Your task to perform on an android device: see sites visited before in the chrome app Image 0: 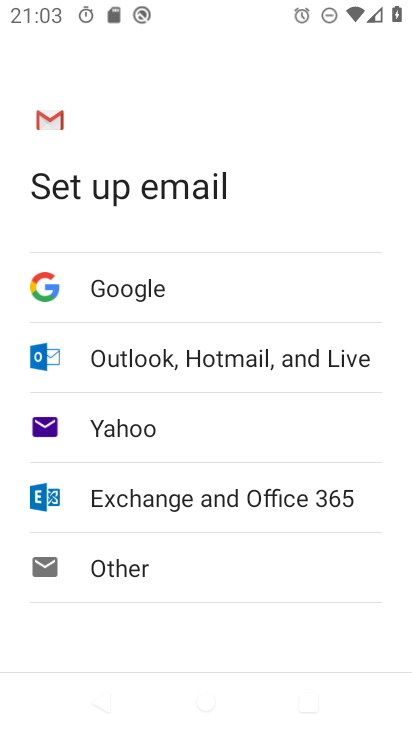
Step 0: press home button
Your task to perform on an android device: see sites visited before in the chrome app Image 1: 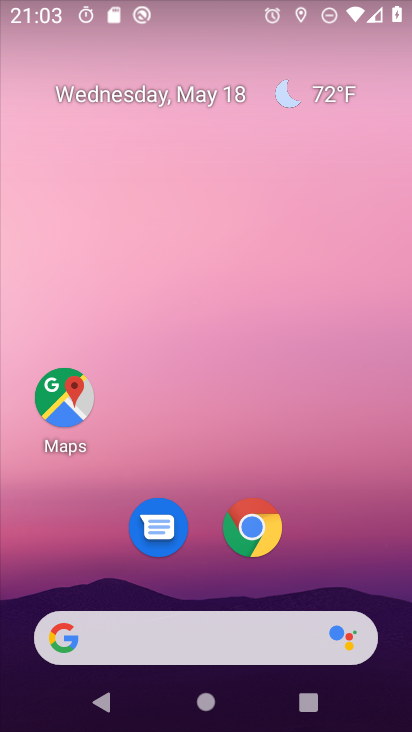
Step 1: click (259, 515)
Your task to perform on an android device: see sites visited before in the chrome app Image 2: 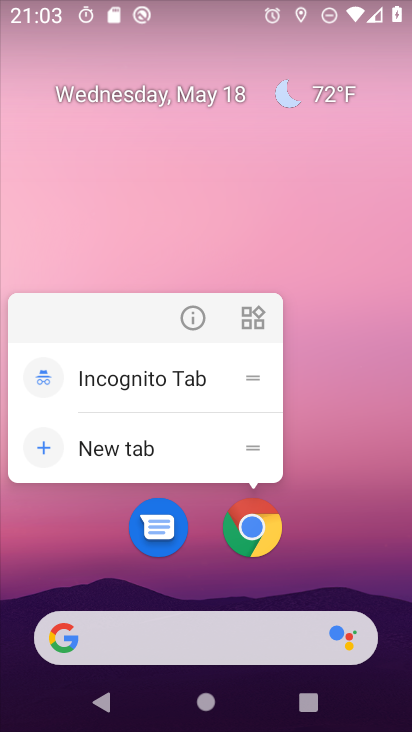
Step 2: click (254, 528)
Your task to perform on an android device: see sites visited before in the chrome app Image 3: 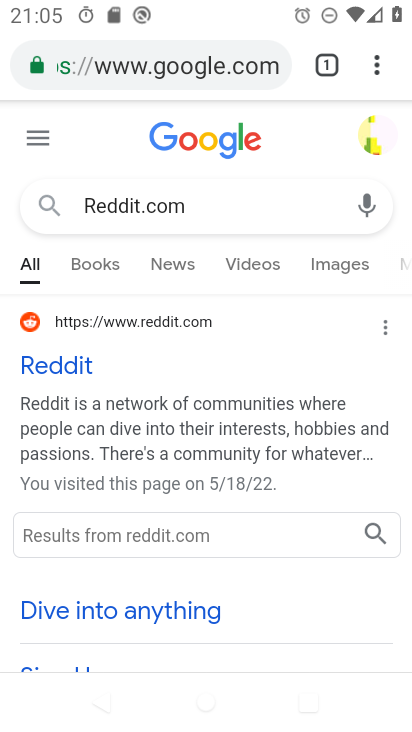
Step 3: click (371, 63)
Your task to perform on an android device: see sites visited before in the chrome app Image 4: 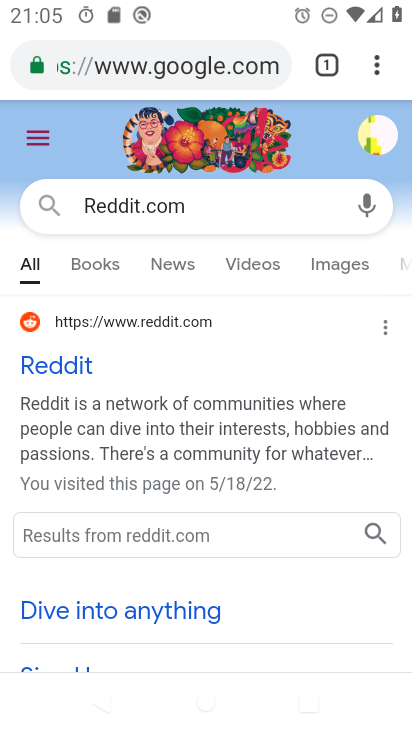
Step 4: click (375, 65)
Your task to perform on an android device: see sites visited before in the chrome app Image 5: 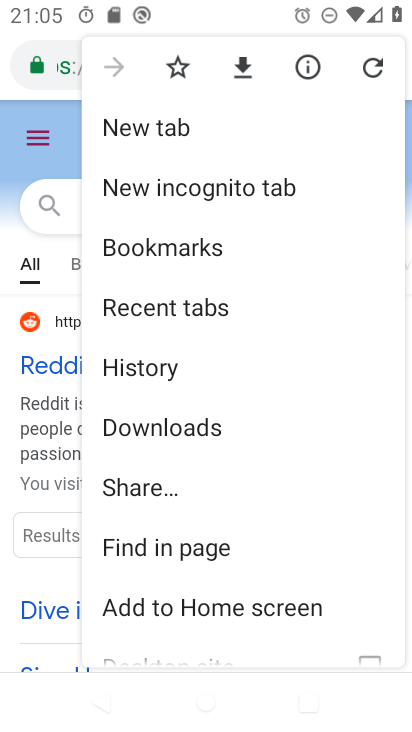
Step 5: drag from (292, 566) to (327, 324)
Your task to perform on an android device: see sites visited before in the chrome app Image 6: 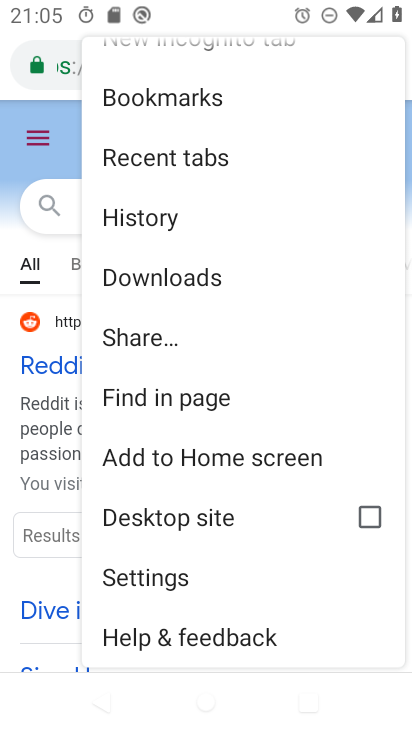
Step 6: click (136, 149)
Your task to perform on an android device: see sites visited before in the chrome app Image 7: 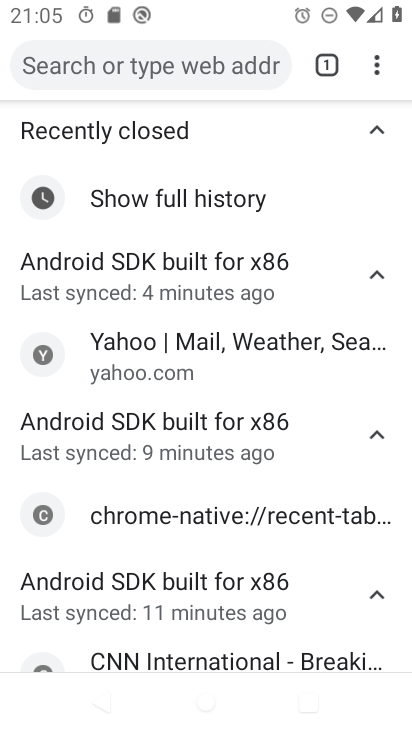
Step 7: task complete